Your task to perform on an android device: install app "Roku - Official Remote Control" Image 0: 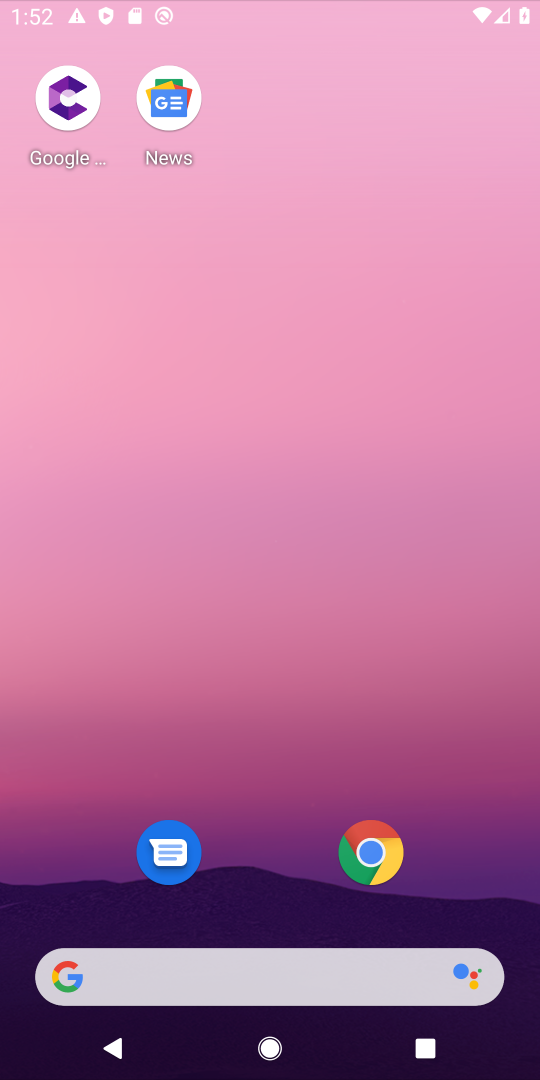
Step 0: press home button
Your task to perform on an android device: install app "Roku - Official Remote Control" Image 1: 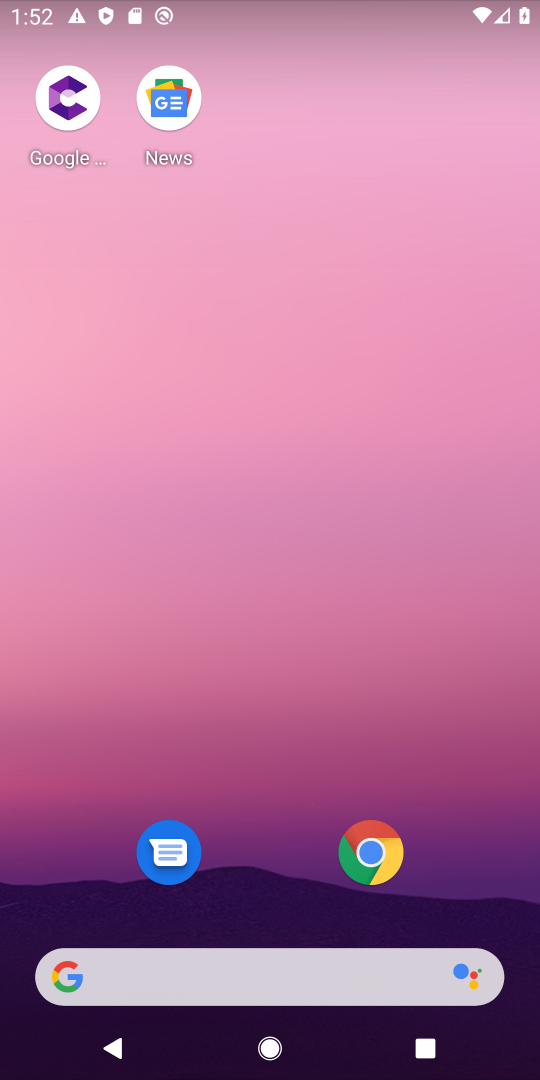
Step 1: press home button
Your task to perform on an android device: install app "Roku - Official Remote Control" Image 2: 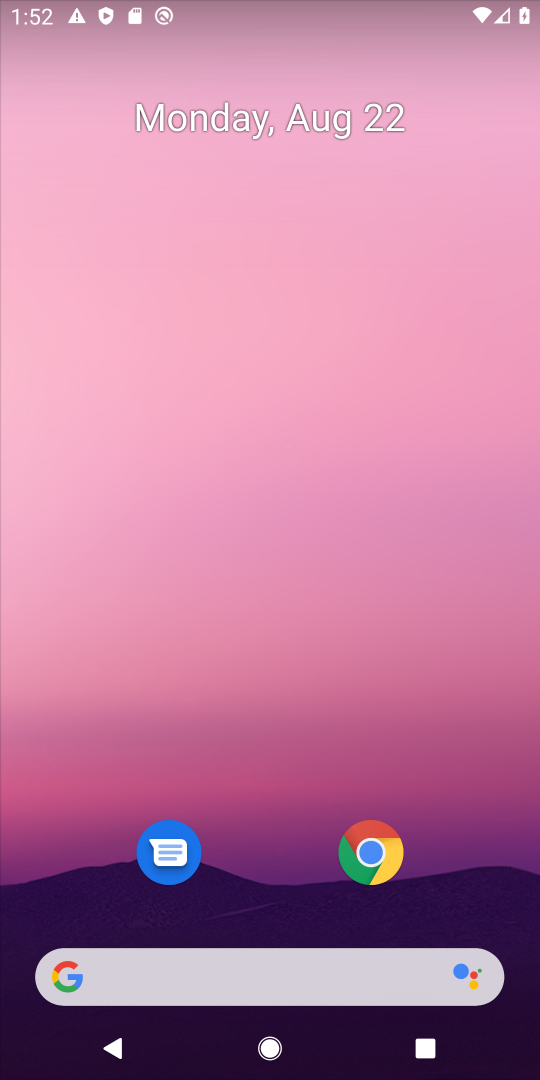
Step 2: drag from (293, 598) to (280, 126)
Your task to perform on an android device: install app "Roku - Official Remote Control" Image 3: 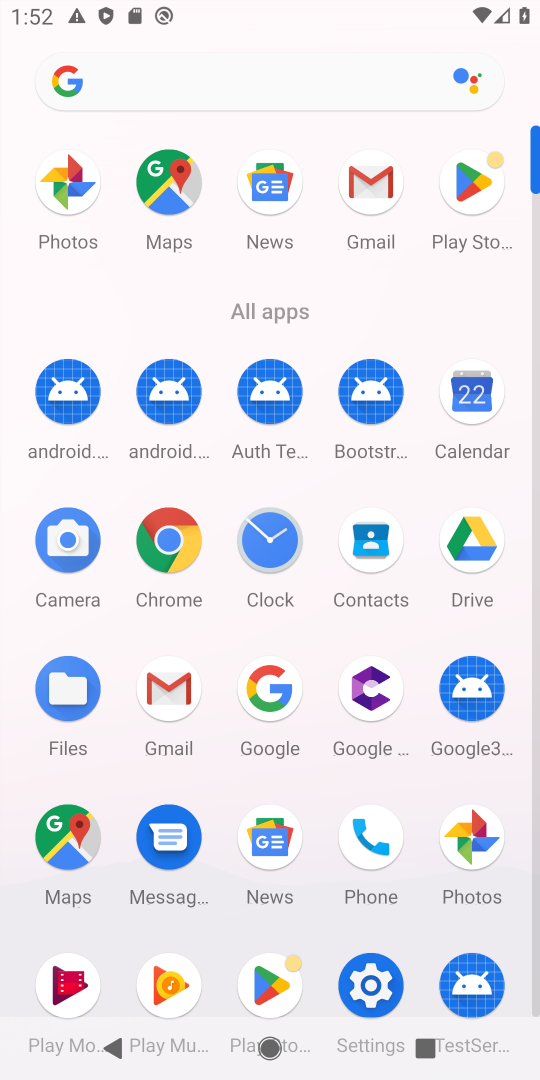
Step 3: click (480, 189)
Your task to perform on an android device: install app "Roku - Official Remote Control" Image 4: 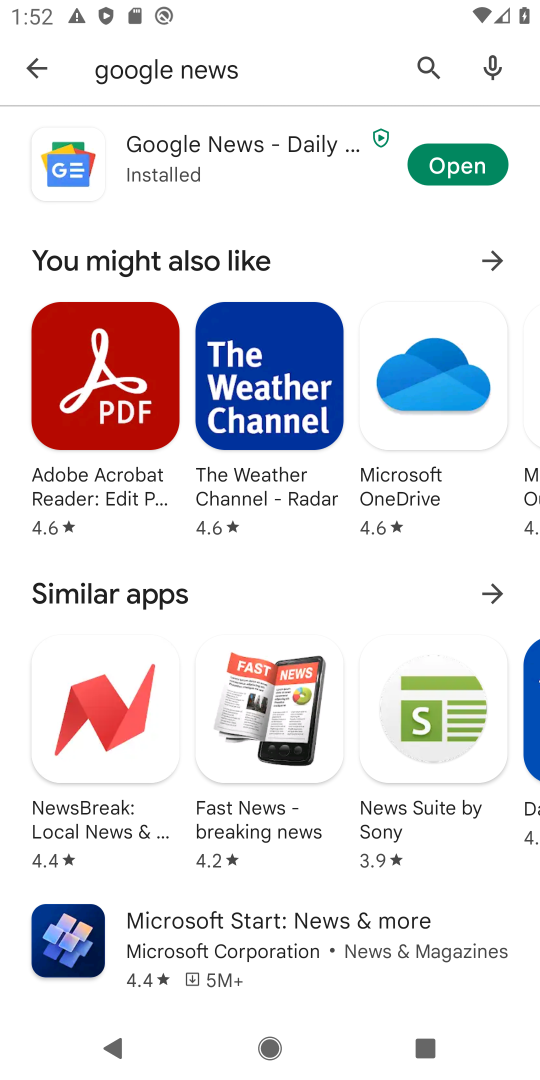
Step 4: click (424, 60)
Your task to perform on an android device: install app "Roku - Official Remote Control" Image 5: 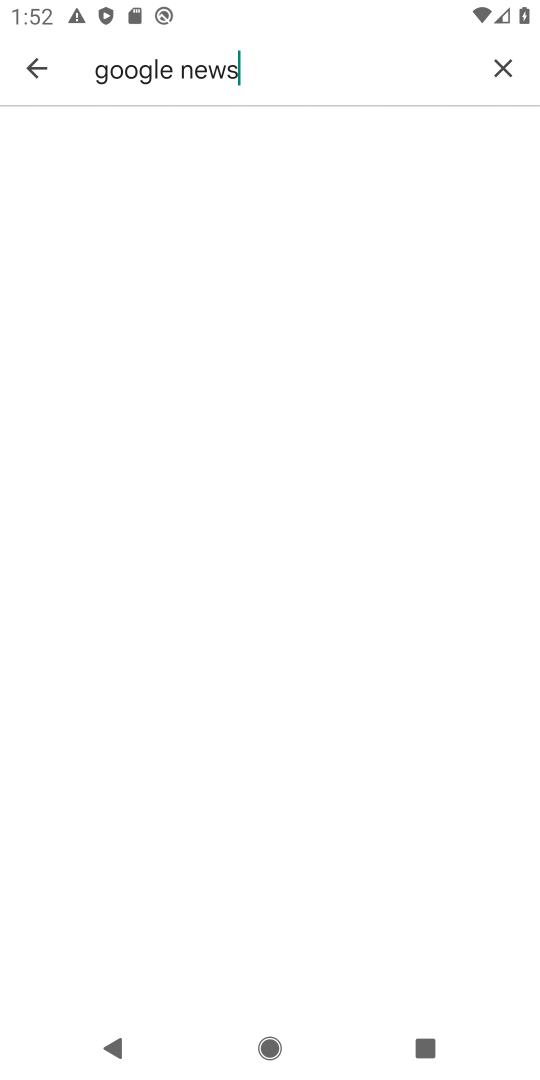
Step 5: click (424, 60)
Your task to perform on an android device: install app "Roku - Official Remote Control" Image 6: 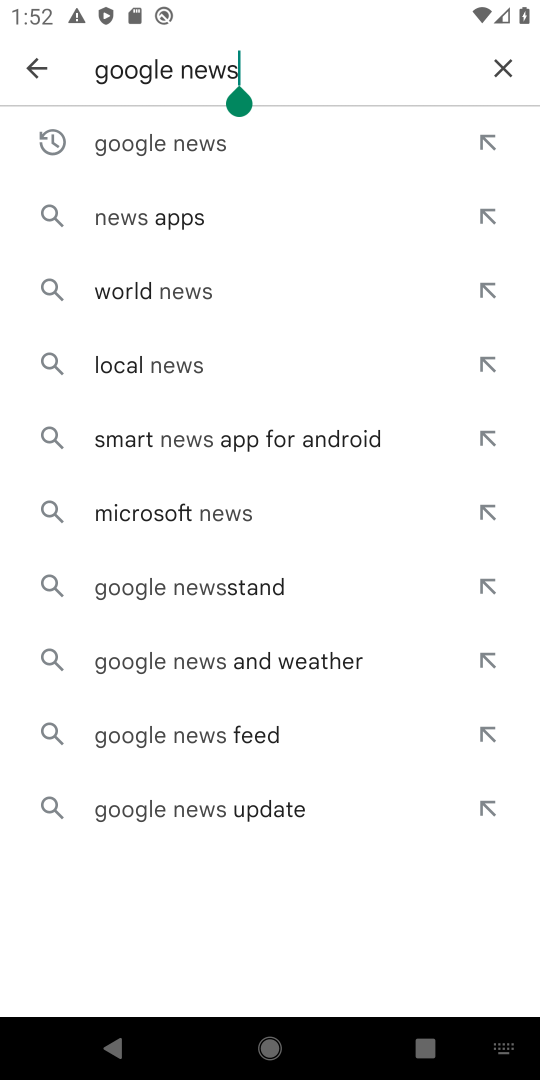
Step 6: click (504, 66)
Your task to perform on an android device: install app "Roku - Official Remote Control" Image 7: 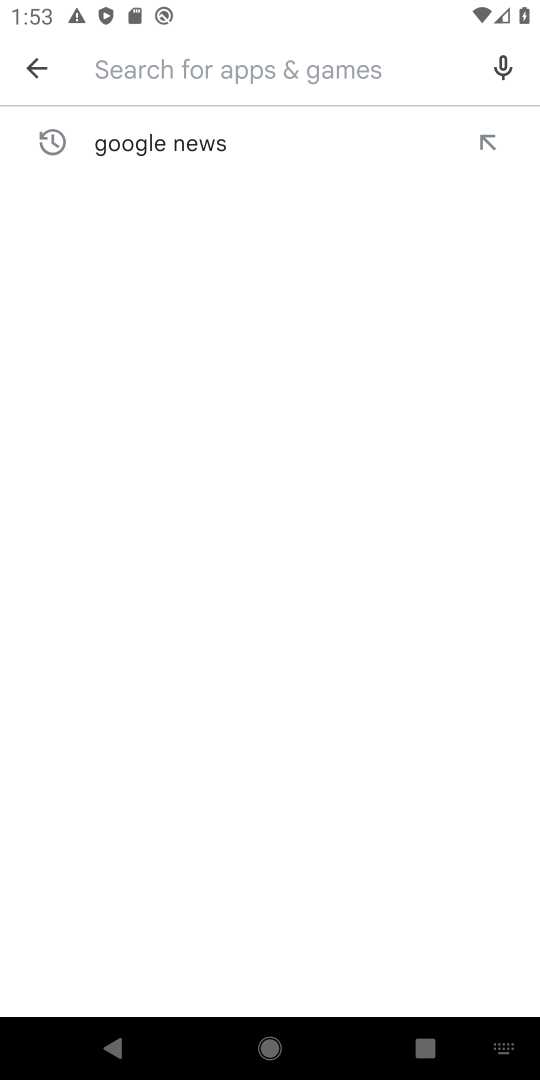
Step 7: type "Roku - Official Remote Control"
Your task to perform on an android device: install app "Roku - Official Remote Control" Image 8: 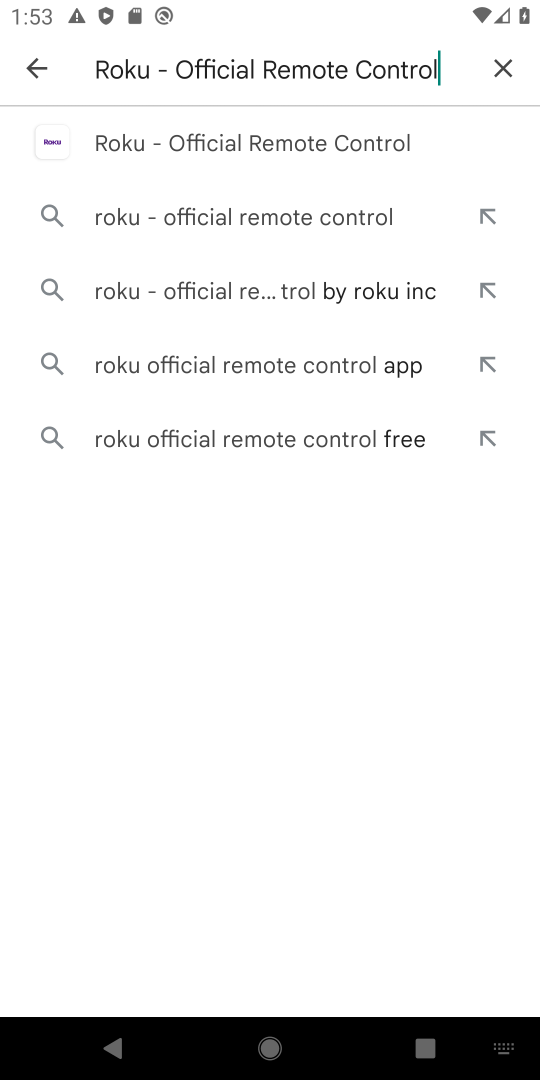
Step 8: click (338, 139)
Your task to perform on an android device: install app "Roku - Official Remote Control" Image 9: 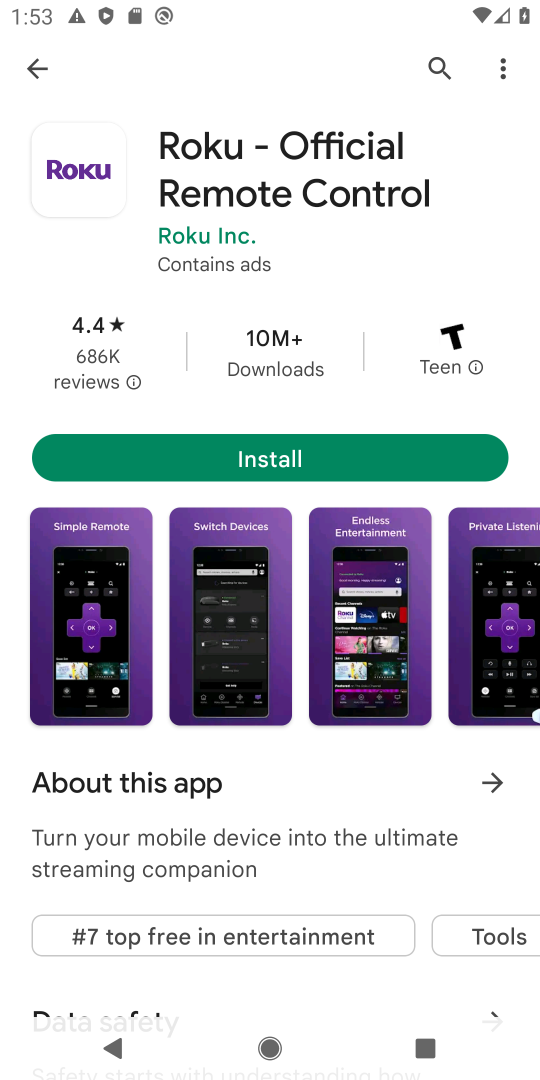
Step 9: click (285, 456)
Your task to perform on an android device: install app "Roku - Official Remote Control" Image 10: 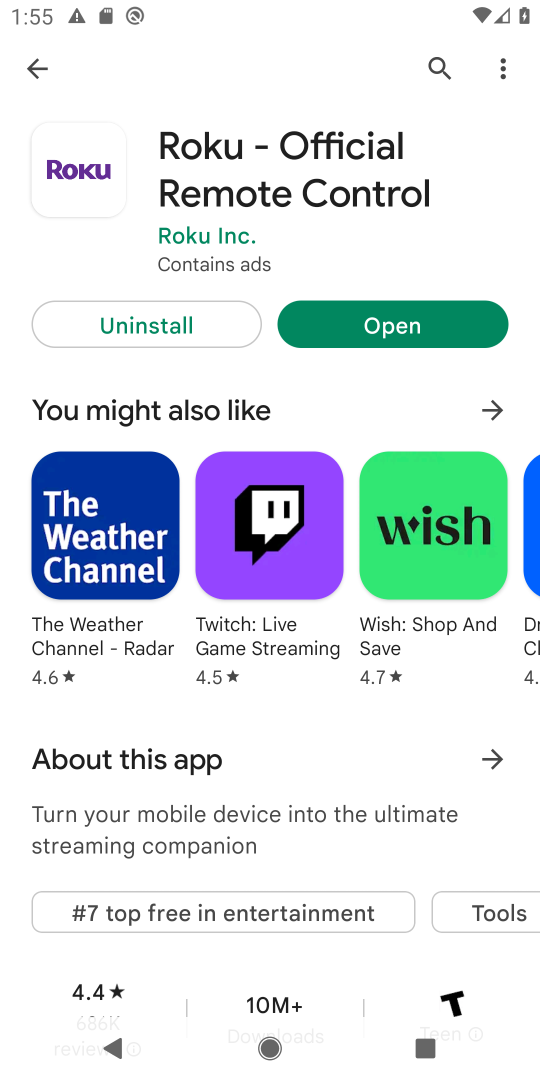
Step 10: task complete